Your task to perform on an android device: Show me recent news Image 0: 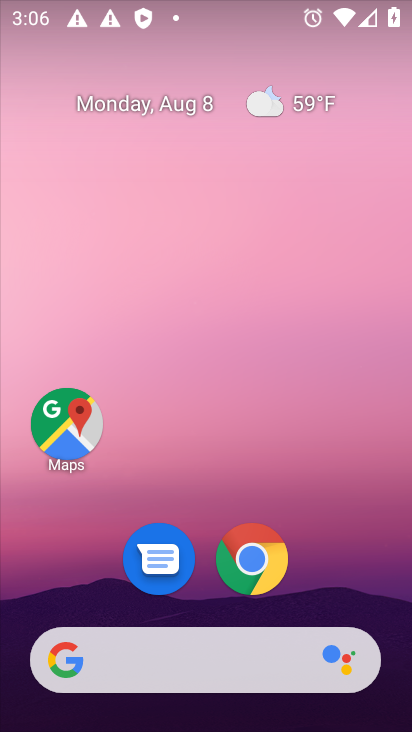
Step 0: drag from (190, 673) to (224, 175)
Your task to perform on an android device: Show me recent news Image 1: 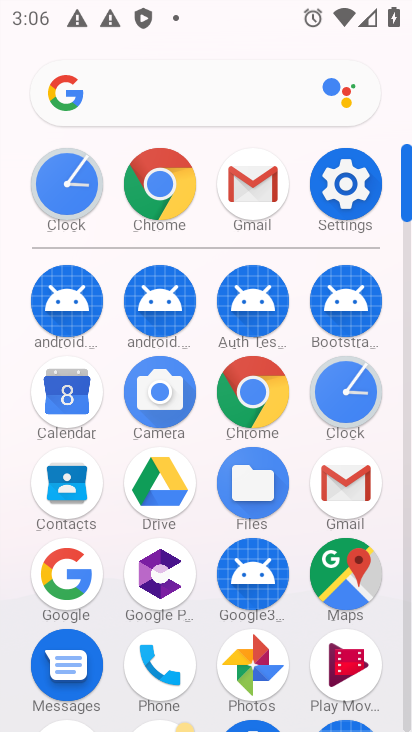
Step 1: click (63, 573)
Your task to perform on an android device: Show me recent news Image 2: 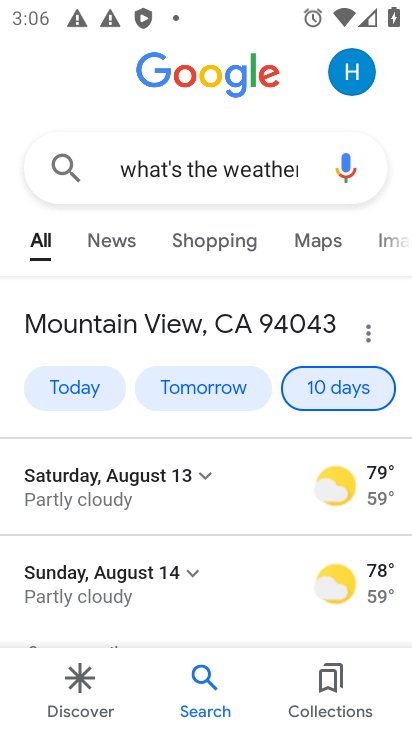
Step 2: click (308, 161)
Your task to perform on an android device: Show me recent news Image 3: 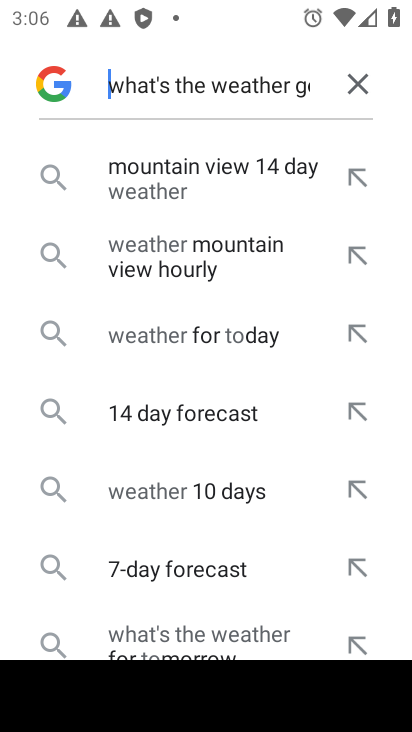
Step 3: click (353, 85)
Your task to perform on an android device: Show me recent news Image 4: 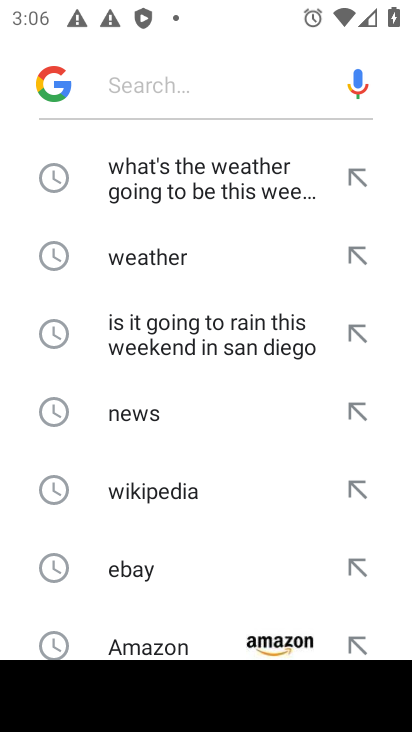
Step 4: type "recent news"
Your task to perform on an android device: Show me recent news Image 5: 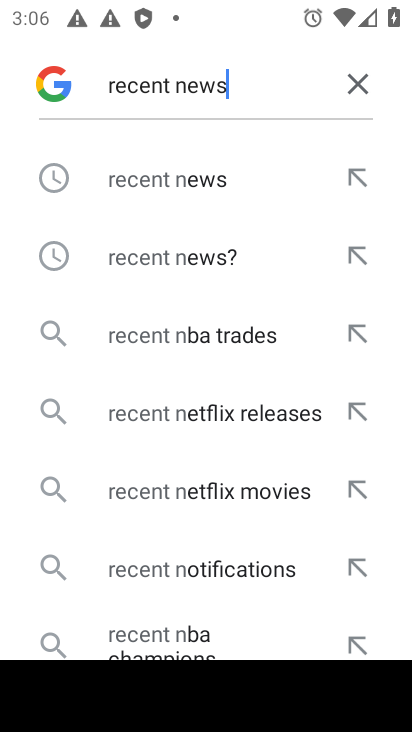
Step 5: type ""
Your task to perform on an android device: Show me recent news Image 6: 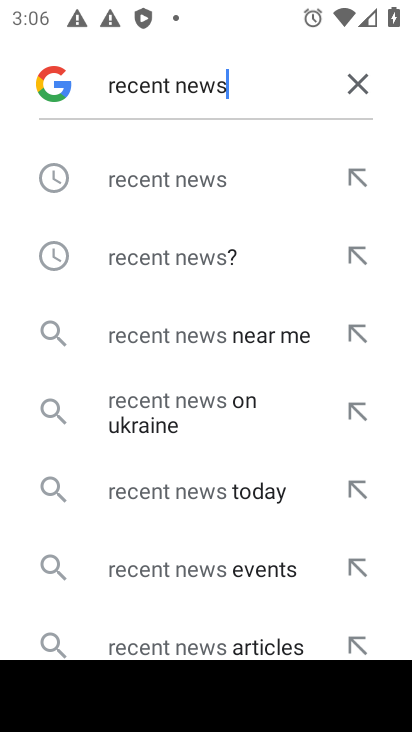
Step 6: click (200, 182)
Your task to perform on an android device: Show me recent news Image 7: 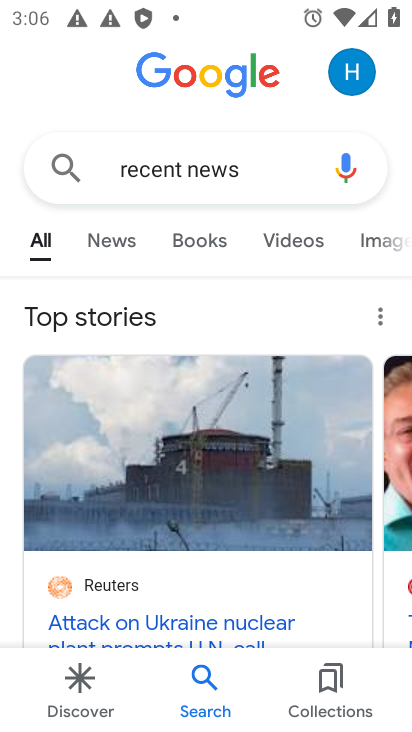
Step 7: drag from (223, 475) to (242, 235)
Your task to perform on an android device: Show me recent news Image 8: 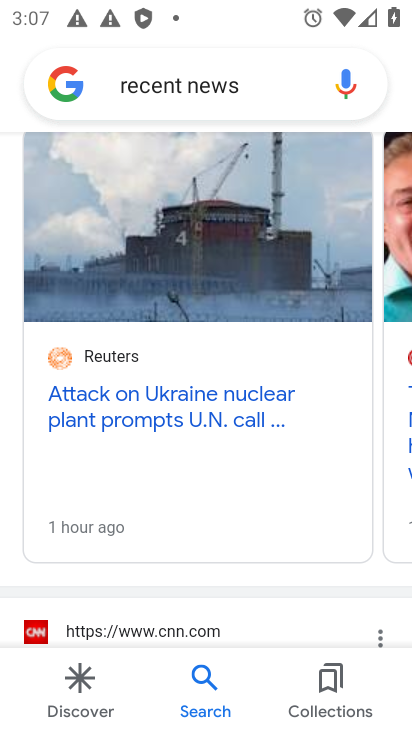
Step 8: drag from (307, 460) to (28, 490)
Your task to perform on an android device: Show me recent news Image 9: 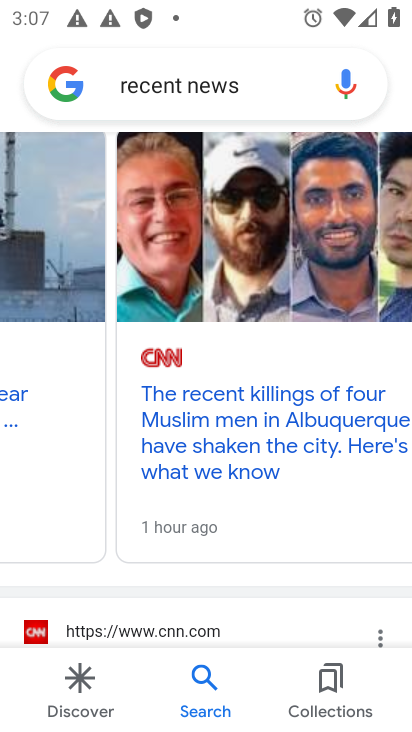
Step 9: drag from (387, 411) to (62, 376)
Your task to perform on an android device: Show me recent news Image 10: 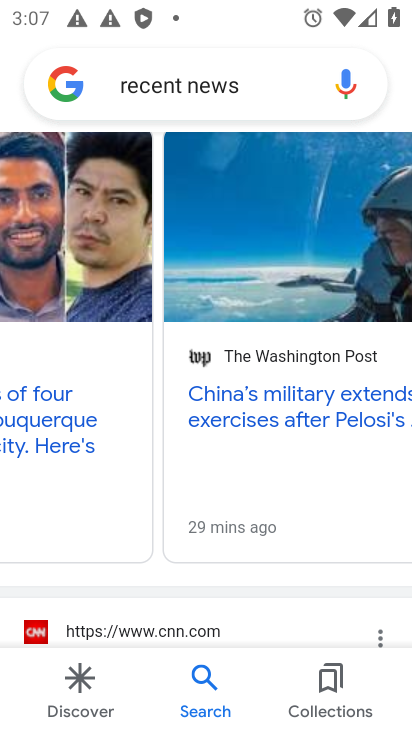
Step 10: drag from (338, 413) to (155, 383)
Your task to perform on an android device: Show me recent news Image 11: 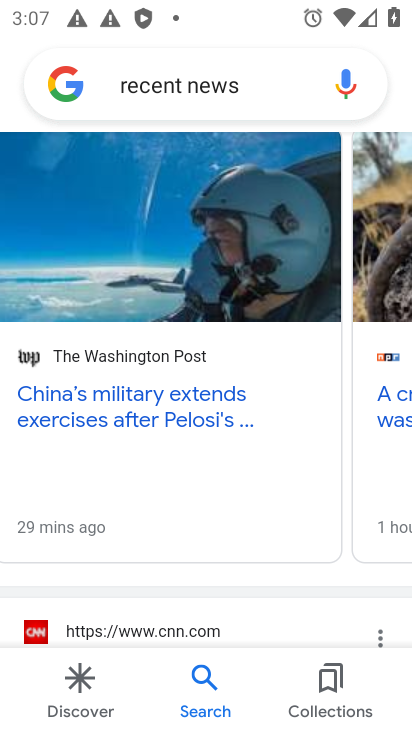
Step 11: click (176, 416)
Your task to perform on an android device: Show me recent news Image 12: 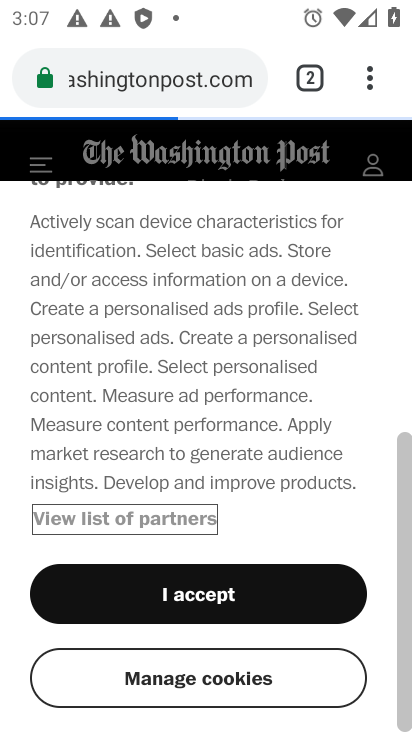
Step 12: click (209, 597)
Your task to perform on an android device: Show me recent news Image 13: 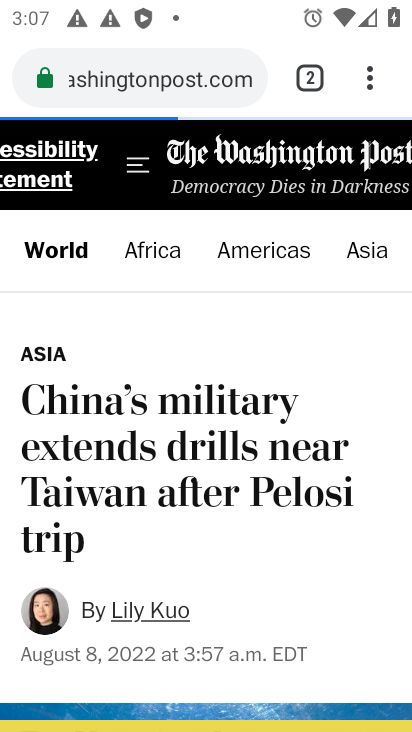
Step 13: task complete